Your task to perform on an android device: toggle airplane mode Image 0: 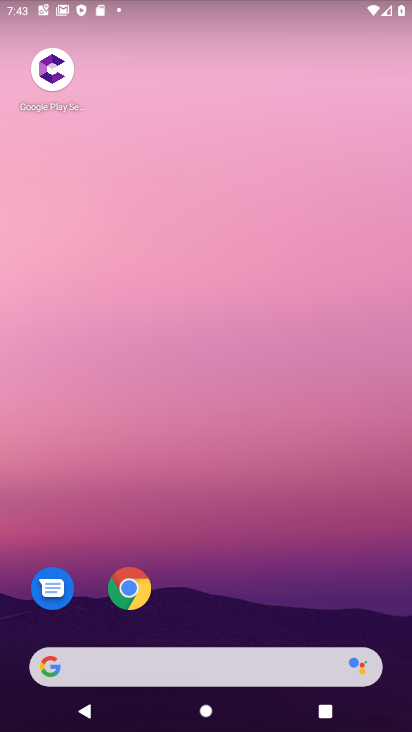
Step 0: drag from (5, 406) to (411, 462)
Your task to perform on an android device: toggle airplane mode Image 1: 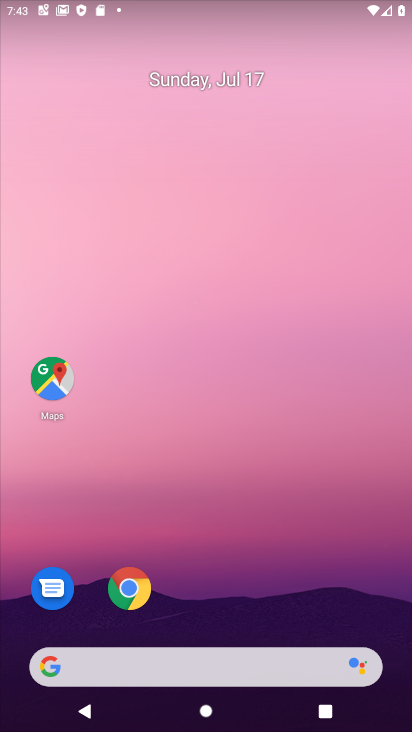
Step 1: drag from (220, 605) to (317, 134)
Your task to perform on an android device: toggle airplane mode Image 2: 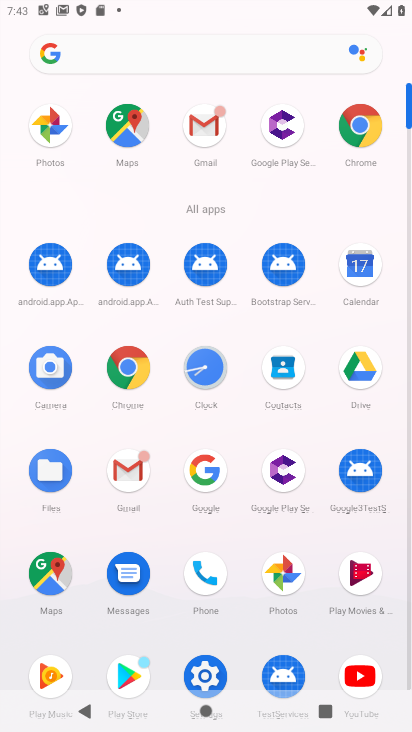
Step 2: drag from (206, 669) to (73, 180)
Your task to perform on an android device: toggle airplane mode Image 3: 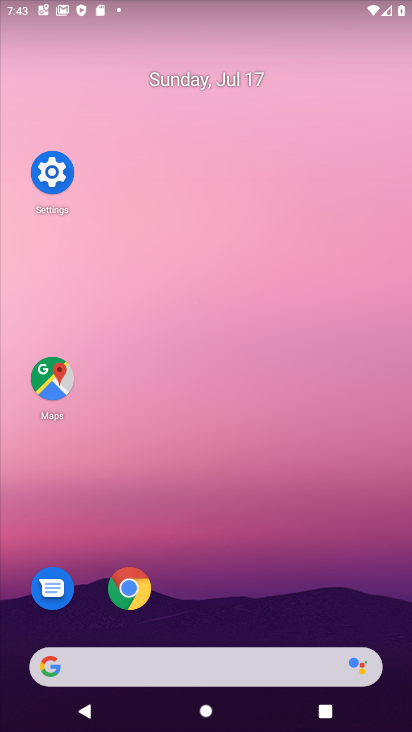
Step 3: click (70, 175)
Your task to perform on an android device: toggle airplane mode Image 4: 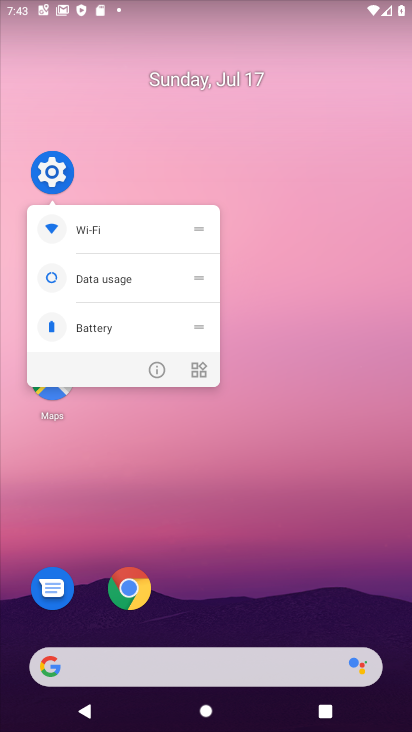
Step 4: click (70, 175)
Your task to perform on an android device: toggle airplane mode Image 5: 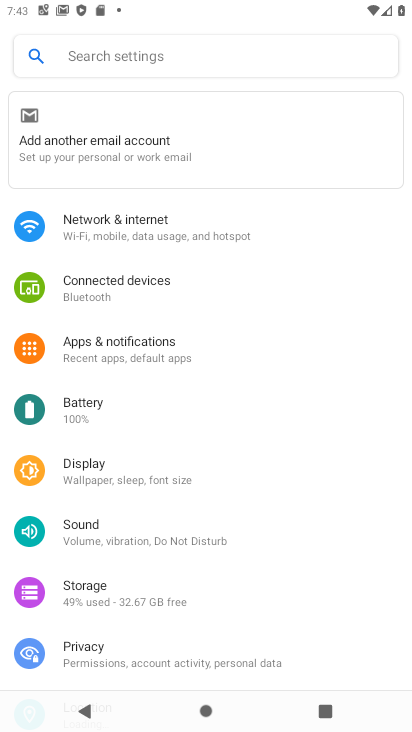
Step 5: click (116, 227)
Your task to perform on an android device: toggle airplane mode Image 6: 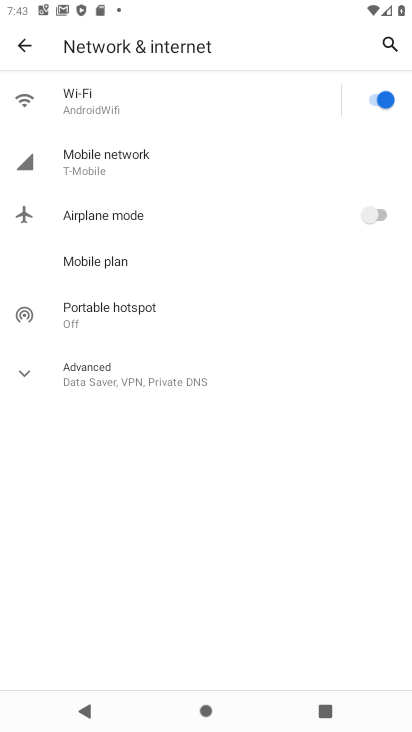
Step 6: click (379, 207)
Your task to perform on an android device: toggle airplane mode Image 7: 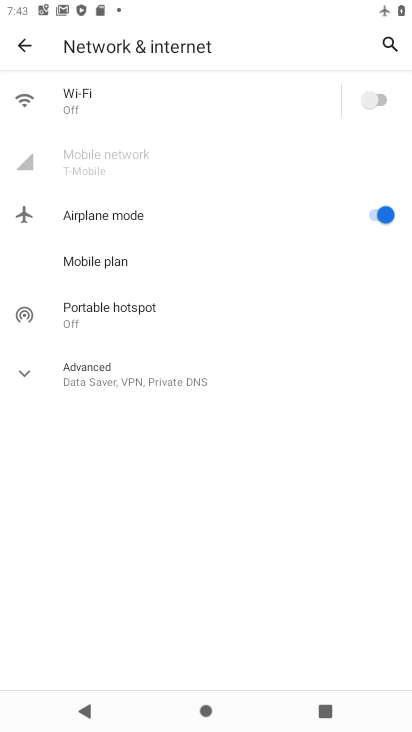
Step 7: task complete